Your task to perform on an android device: open a bookmark in the chrome app Image 0: 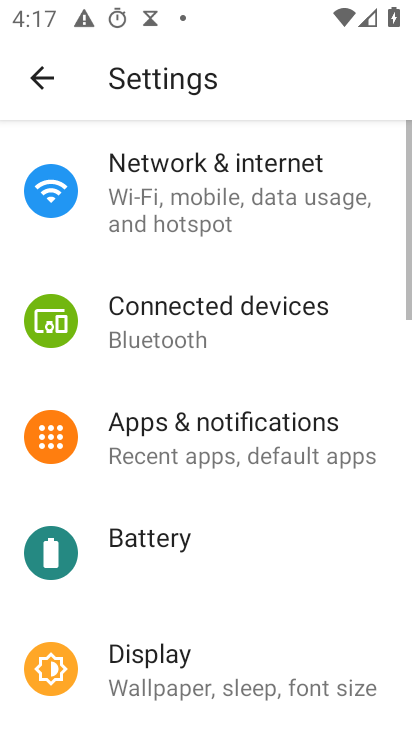
Step 0: press back button
Your task to perform on an android device: open a bookmark in the chrome app Image 1: 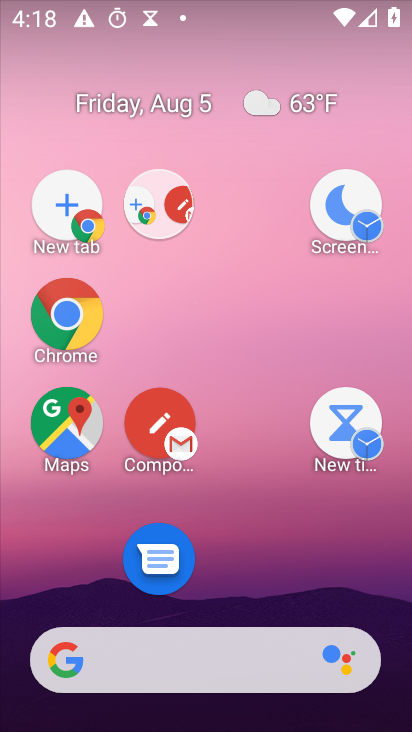
Step 1: drag from (257, 638) to (250, 58)
Your task to perform on an android device: open a bookmark in the chrome app Image 2: 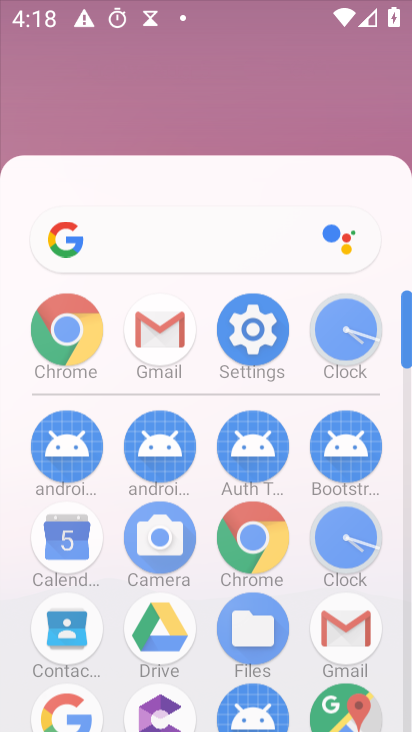
Step 2: drag from (292, 515) to (238, 101)
Your task to perform on an android device: open a bookmark in the chrome app Image 3: 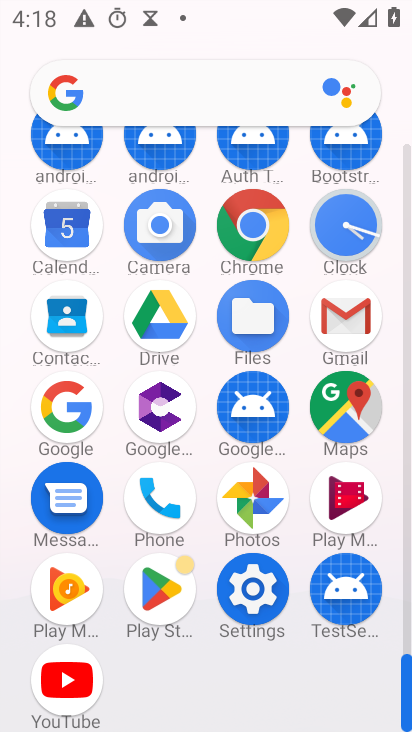
Step 3: click (239, 218)
Your task to perform on an android device: open a bookmark in the chrome app Image 4: 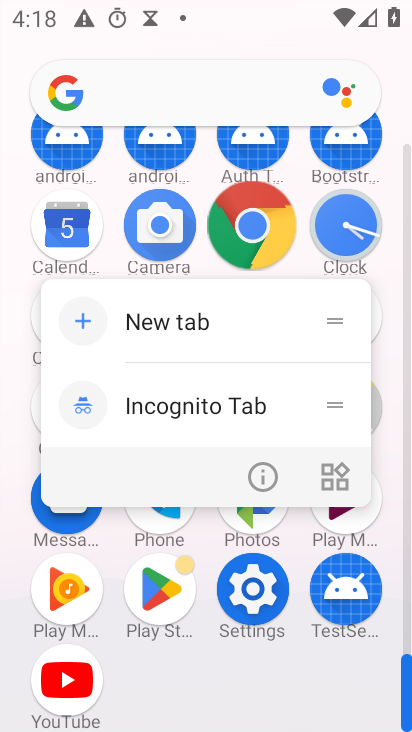
Step 4: click (246, 227)
Your task to perform on an android device: open a bookmark in the chrome app Image 5: 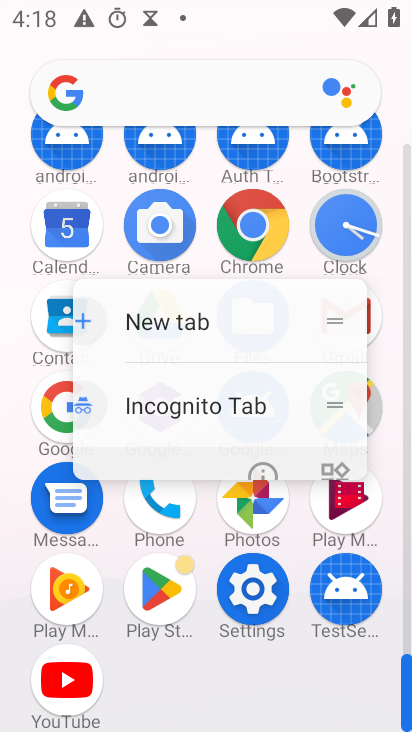
Step 5: click (249, 229)
Your task to perform on an android device: open a bookmark in the chrome app Image 6: 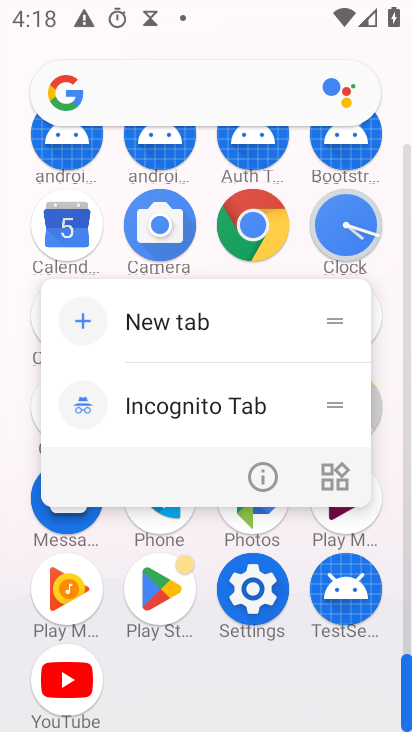
Step 6: click (250, 233)
Your task to perform on an android device: open a bookmark in the chrome app Image 7: 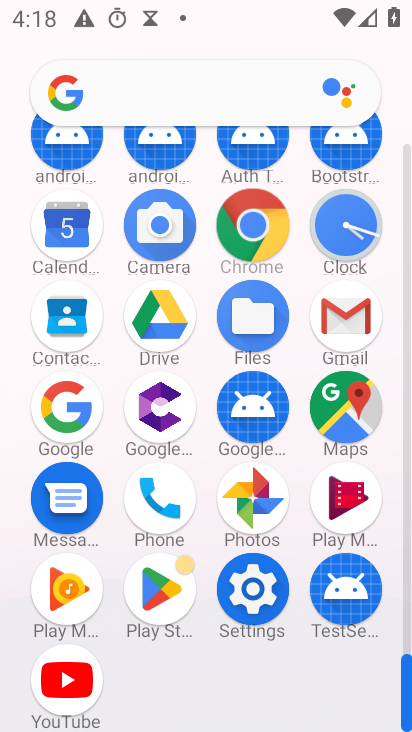
Step 7: click (253, 227)
Your task to perform on an android device: open a bookmark in the chrome app Image 8: 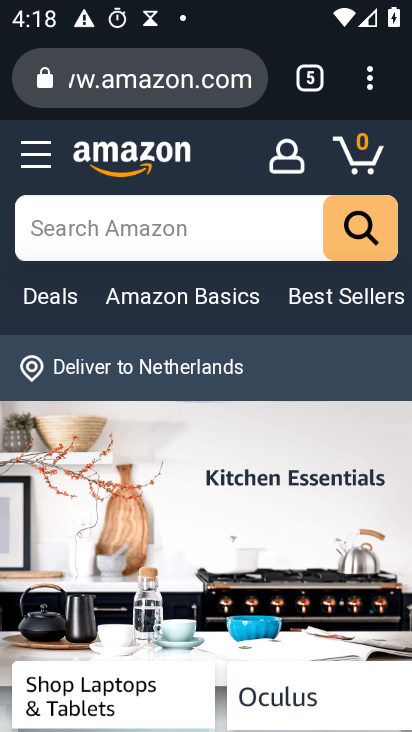
Step 8: drag from (368, 79) to (120, 281)
Your task to perform on an android device: open a bookmark in the chrome app Image 9: 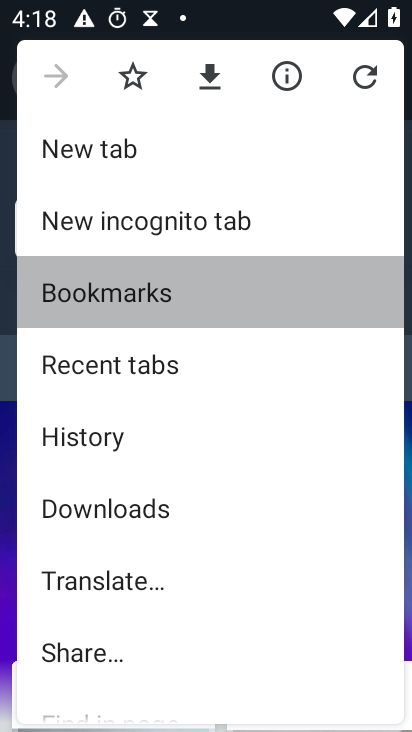
Step 9: click (120, 282)
Your task to perform on an android device: open a bookmark in the chrome app Image 10: 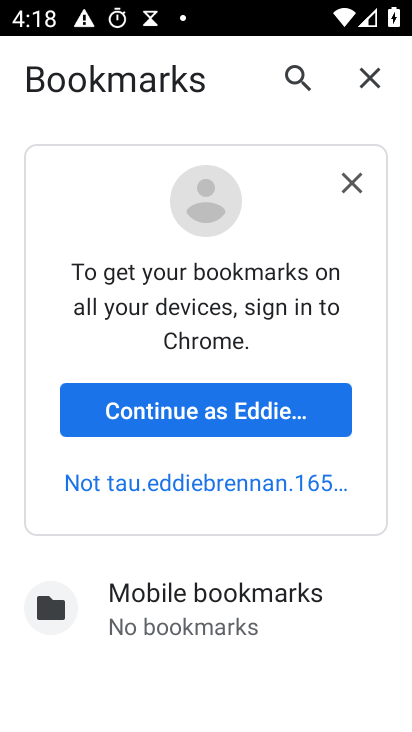
Step 10: task complete